Your task to perform on an android device: move an email to a new category in the gmail app Image 0: 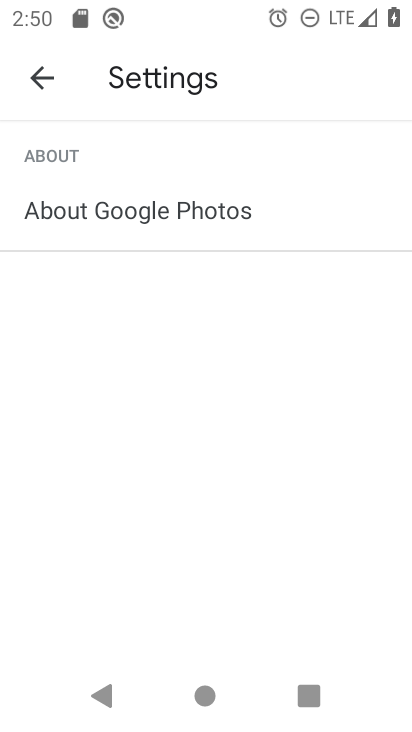
Step 0: press home button
Your task to perform on an android device: move an email to a new category in the gmail app Image 1: 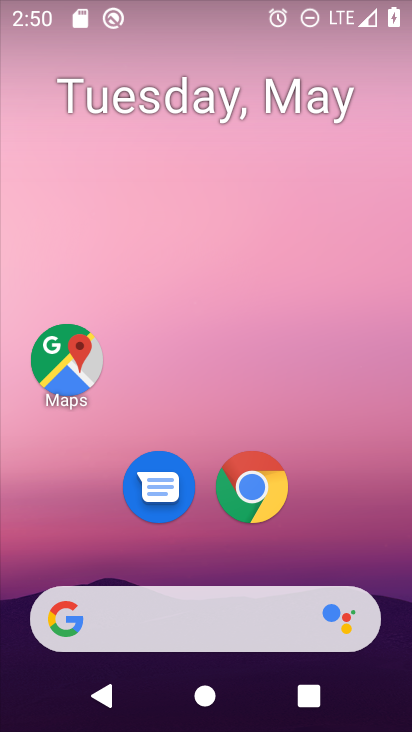
Step 1: drag from (30, 465) to (185, 178)
Your task to perform on an android device: move an email to a new category in the gmail app Image 2: 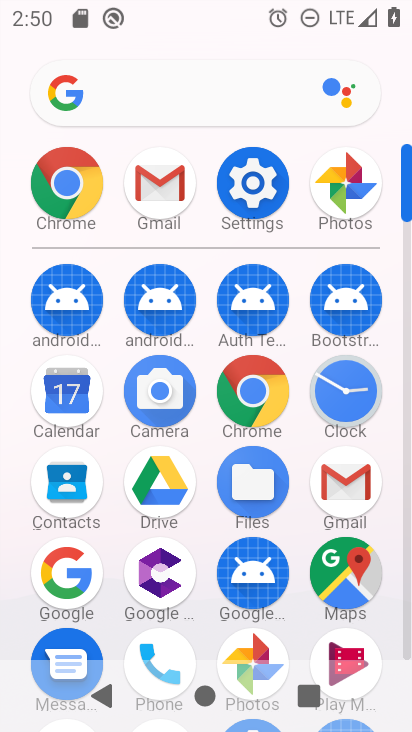
Step 2: click (338, 499)
Your task to perform on an android device: move an email to a new category in the gmail app Image 3: 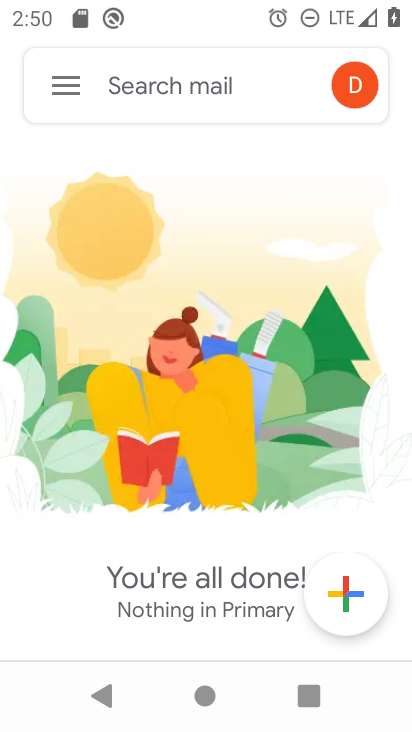
Step 3: click (71, 71)
Your task to perform on an android device: move an email to a new category in the gmail app Image 4: 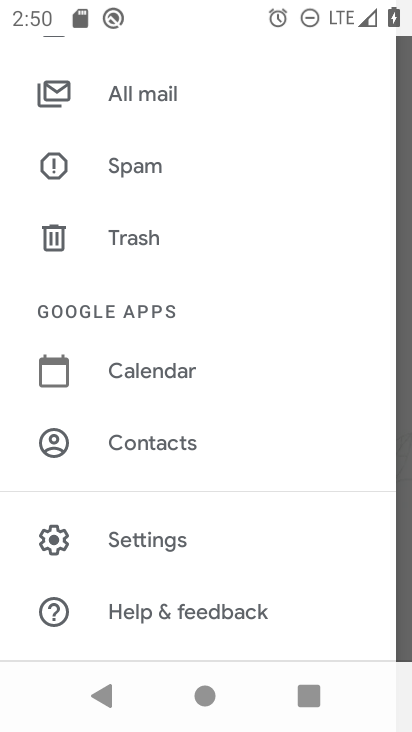
Step 4: task complete